Your task to perform on an android device: toggle wifi Image 0: 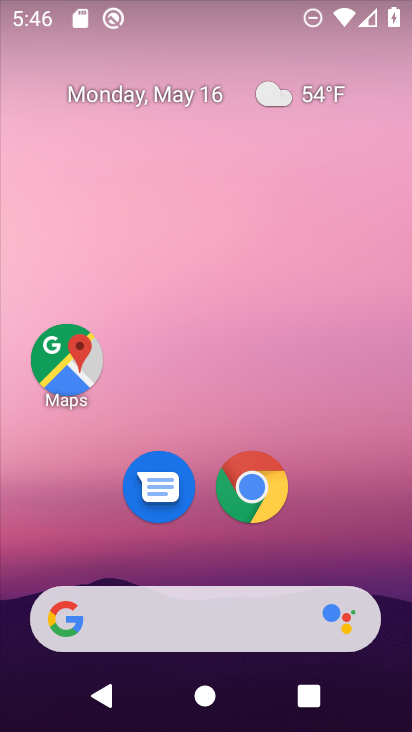
Step 0: drag from (196, 392) to (198, 238)
Your task to perform on an android device: toggle wifi Image 1: 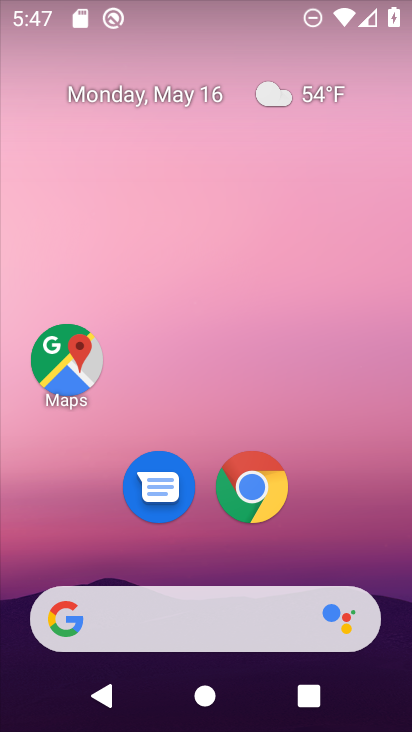
Step 1: drag from (202, 531) to (192, 153)
Your task to perform on an android device: toggle wifi Image 2: 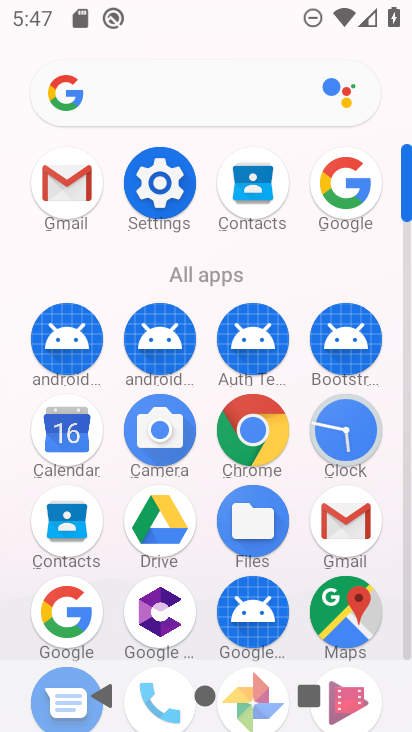
Step 2: click (160, 186)
Your task to perform on an android device: toggle wifi Image 3: 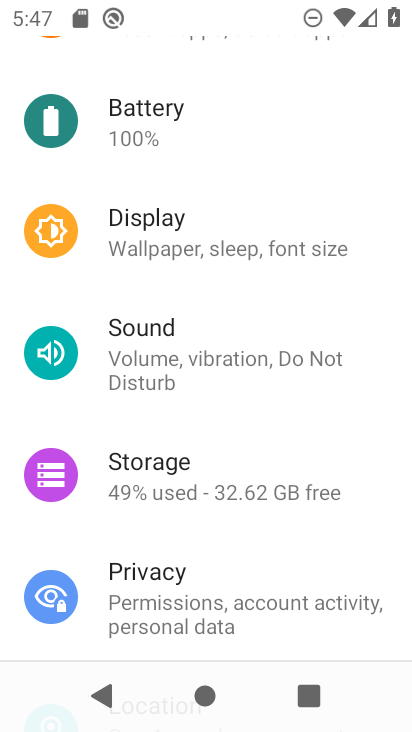
Step 3: drag from (188, 86) to (151, 579)
Your task to perform on an android device: toggle wifi Image 4: 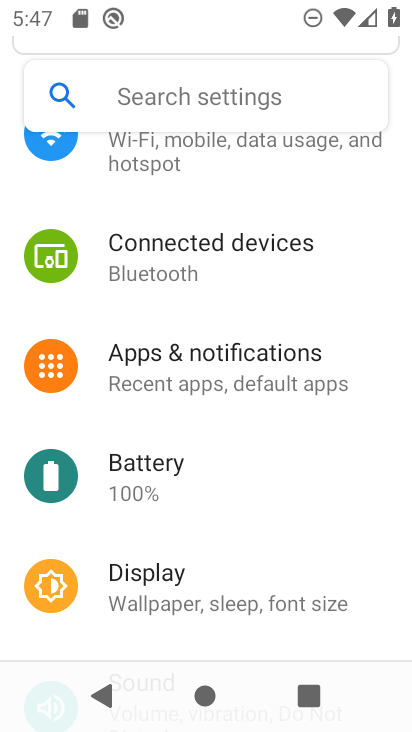
Step 4: drag from (210, 159) to (209, 603)
Your task to perform on an android device: toggle wifi Image 5: 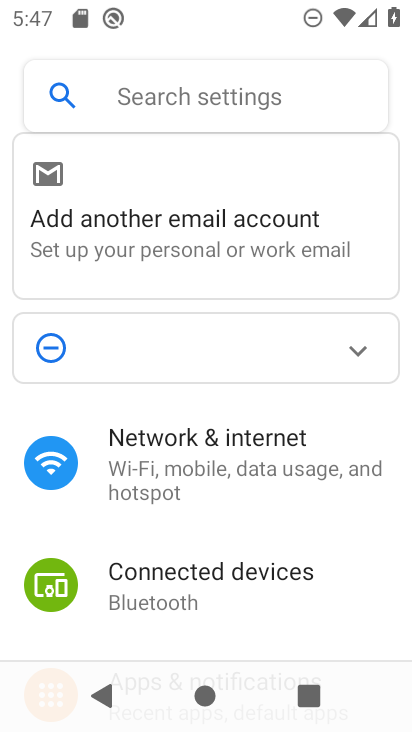
Step 5: click (185, 463)
Your task to perform on an android device: toggle wifi Image 6: 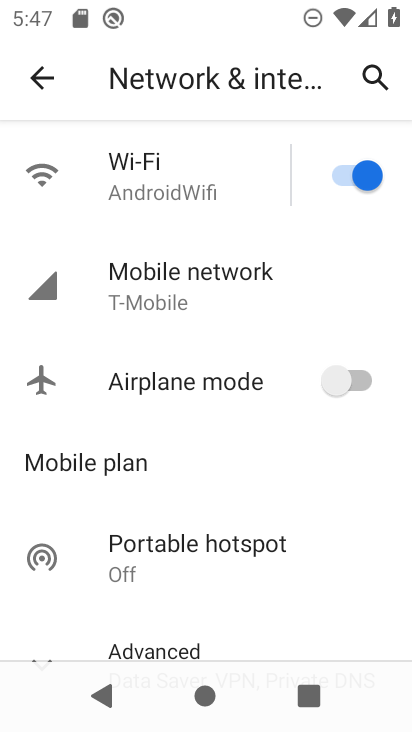
Step 6: click (339, 174)
Your task to perform on an android device: toggle wifi Image 7: 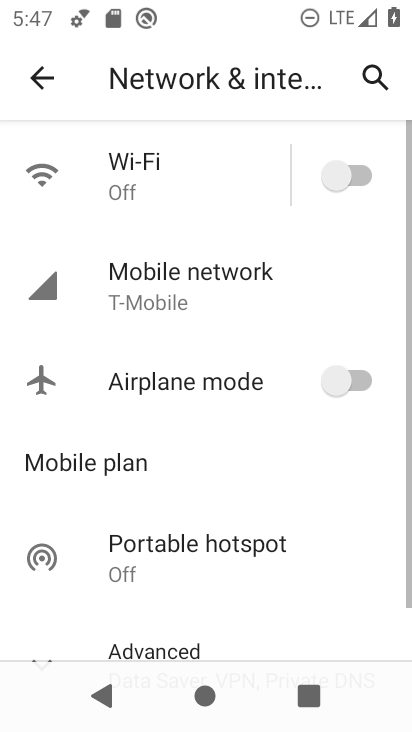
Step 7: task complete